Your task to perform on an android device: Open notification settings Image 0: 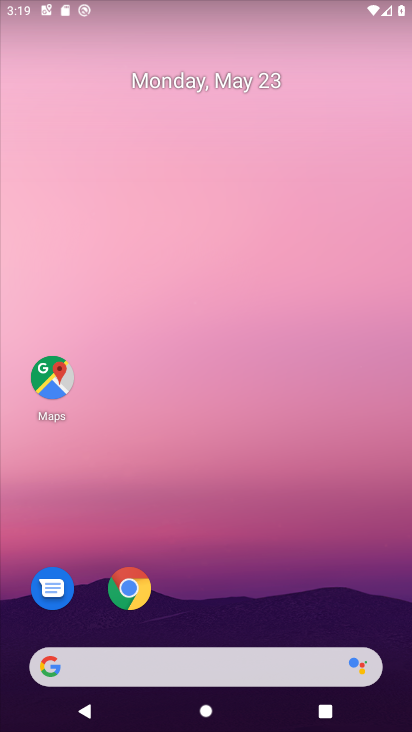
Step 0: drag from (200, 568) to (286, 212)
Your task to perform on an android device: Open notification settings Image 1: 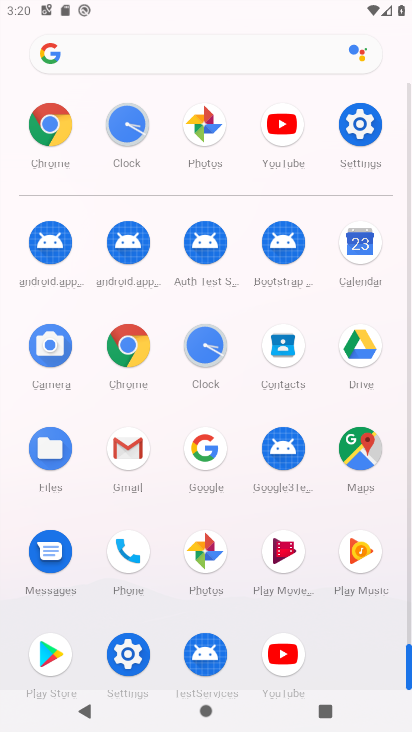
Step 1: click (357, 119)
Your task to perform on an android device: Open notification settings Image 2: 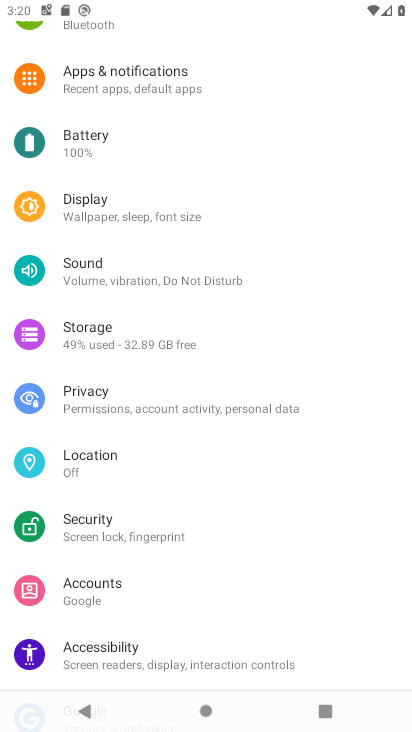
Step 2: drag from (135, 545) to (214, 205)
Your task to perform on an android device: Open notification settings Image 3: 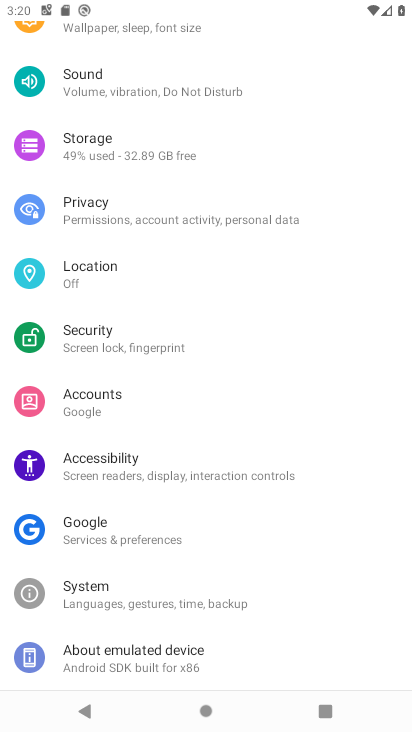
Step 3: drag from (190, 579) to (294, 69)
Your task to perform on an android device: Open notification settings Image 4: 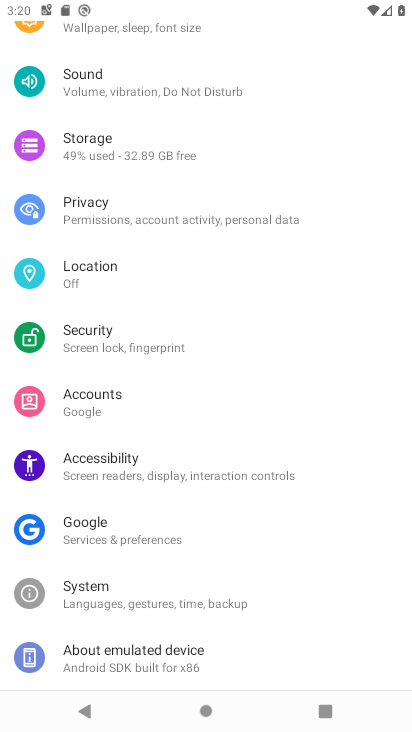
Step 4: drag from (167, 183) to (231, 513)
Your task to perform on an android device: Open notification settings Image 5: 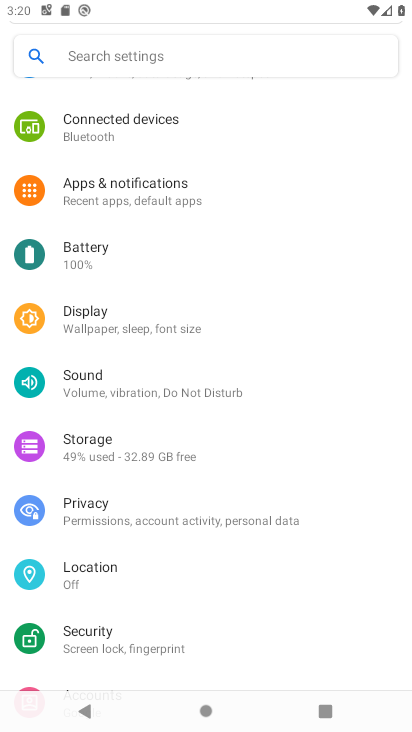
Step 5: click (171, 188)
Your task to perform on an android device: Open notification settings Image 6: 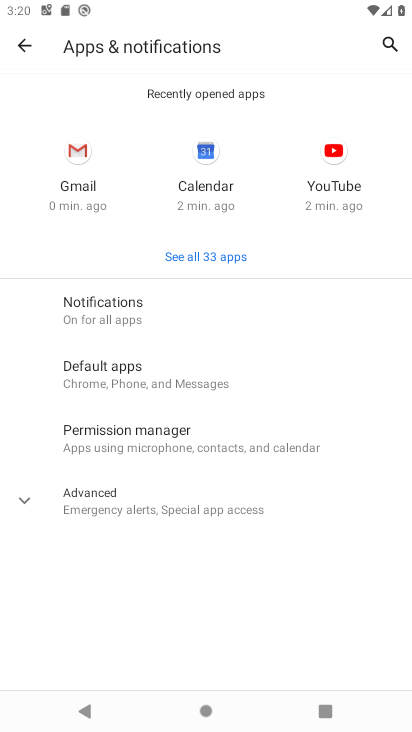
Step 6: click (172, 289)
Your task to perform on an android device: Open notification settings Image 7: 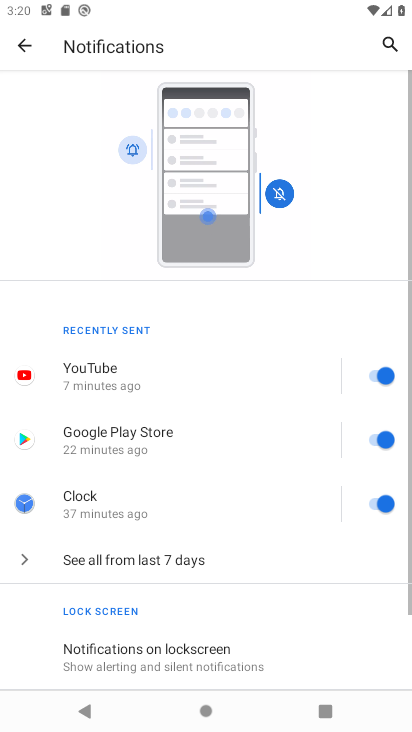
Step 7: drag from (217, 565) to (282, 91)
Your task to perform on an android device: Open notification settings Image 8: 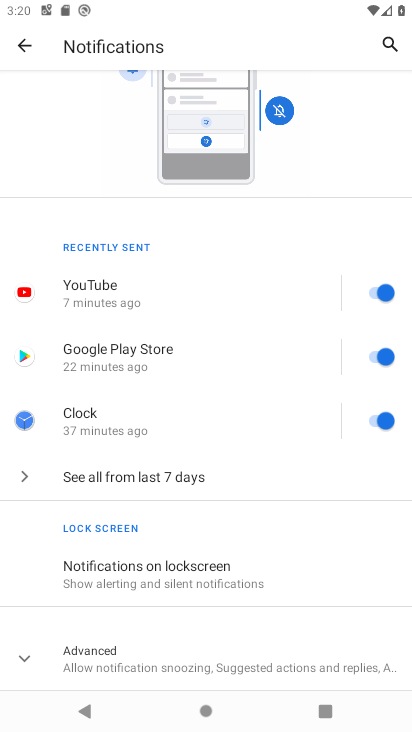
Step 8: drag from (210, 564) to (246, 201)
Your task to perform on an android device: Open notification settings Image 9: 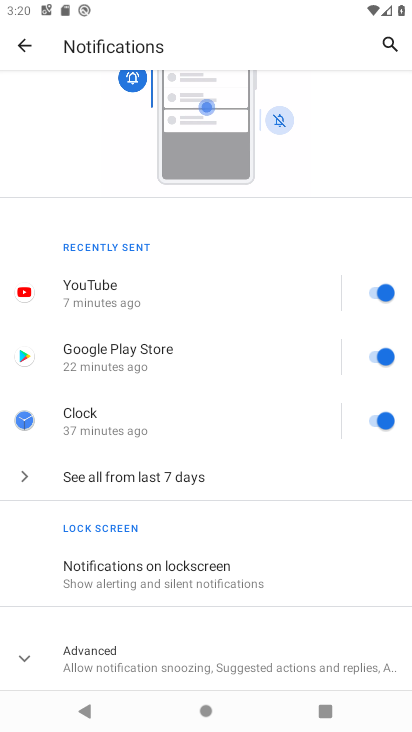
Step 9: drag from (207, 571) to (228, 268)
Your task to perform on an android device: Open notification settings Image 10: 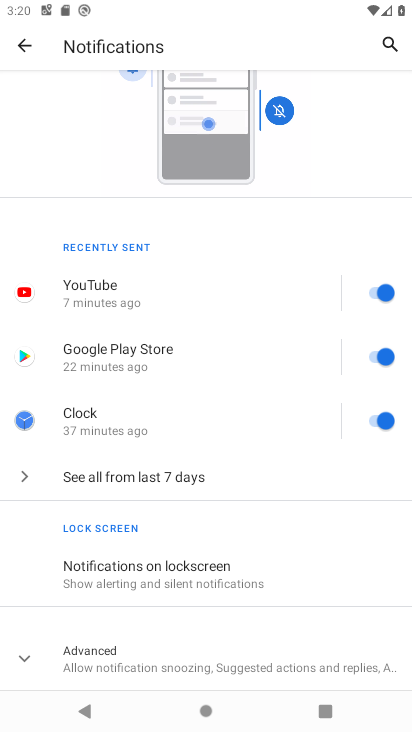
Step 10: drag from (216, 603) to (259, 184)
Your task to perform on an android device: Open notification settings Image 11: 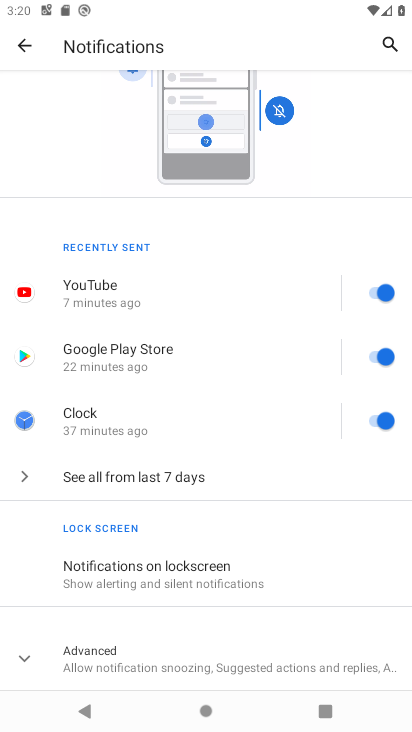
Step 11: drag from (257, 292) to (211, 705)
Your task to perform on an android device: Open notification settings Image 12: 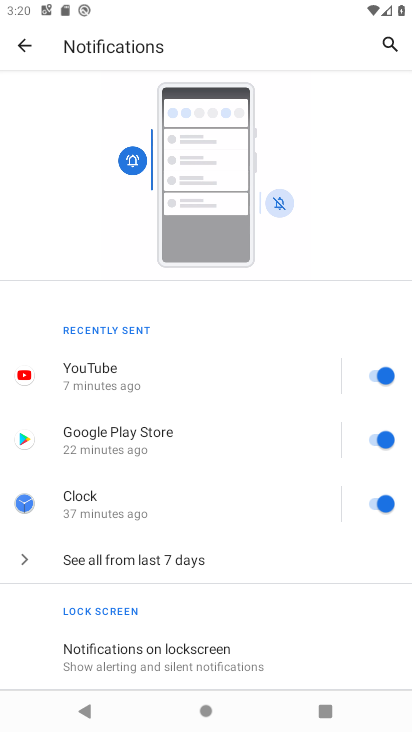
Step 12: drag from (204, 361) to (225, 171)
Your task to perform on an android device: Open notification settings Image 13: 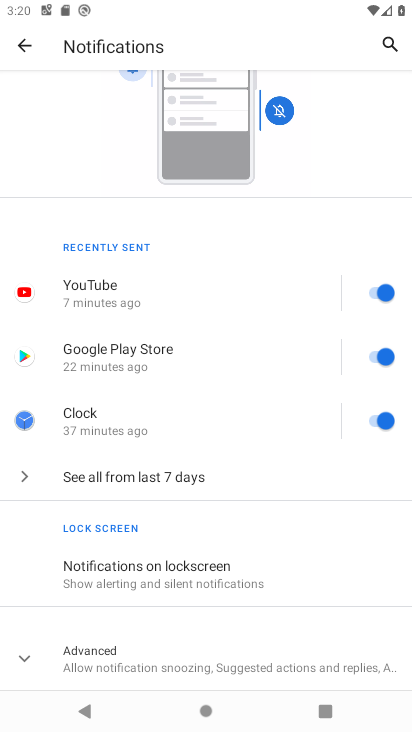
Step 13: drag from (222, 627) to (258, 306)
Your task to perform on an android device: Open notification settings Image 14: 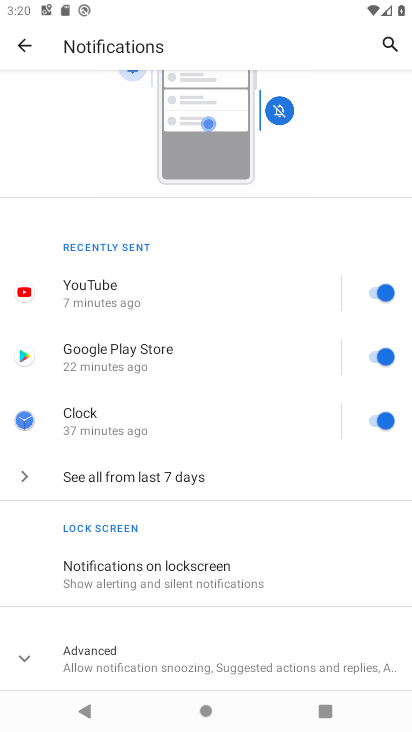
Step 14: drag from (224, 280) to (248, 638)
Your task to perform on an android device: Open notification settings Image 15: 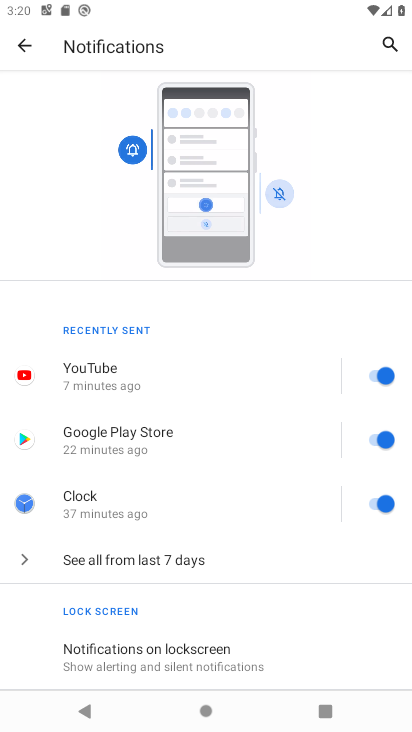
Step 15: click (379, 383)
Your task to perform on an android device: Open notification settings Image 16: 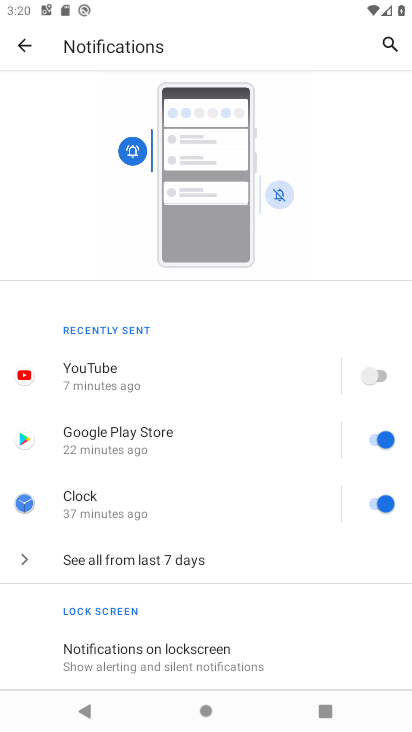
Step 16: task complete